Your task to perform on an android device: turn notification dots on Image 0: 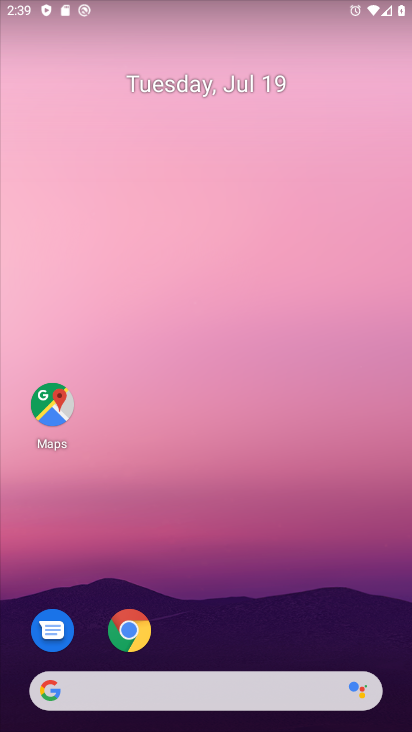
Step 0: drag from (258, 610) to (232, 37)
Your task to perform on an android device: turn notification dots on Image 1: 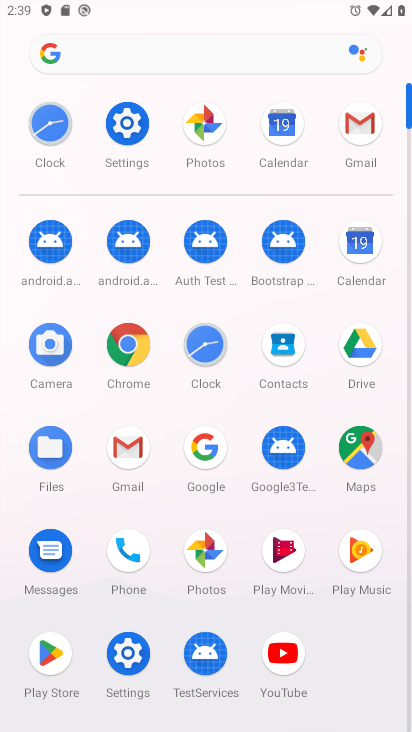
Step 1: click (137, 116)
Your task to perform on an android device: turn notification dots on Image 2: 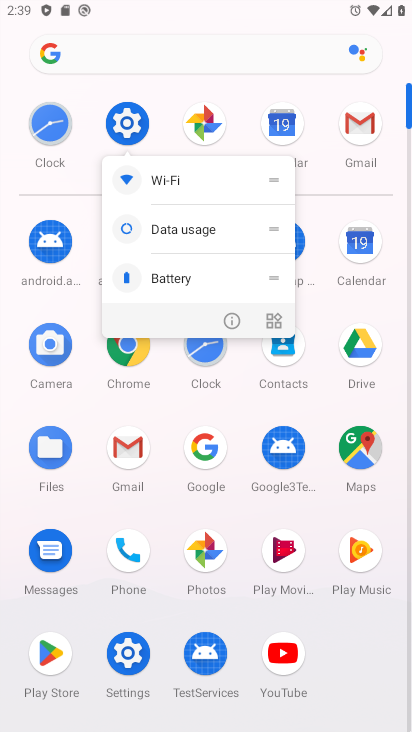
Step 2: click (129, 119)
Your task to perform on an android device: turn notification dots on Image 3: 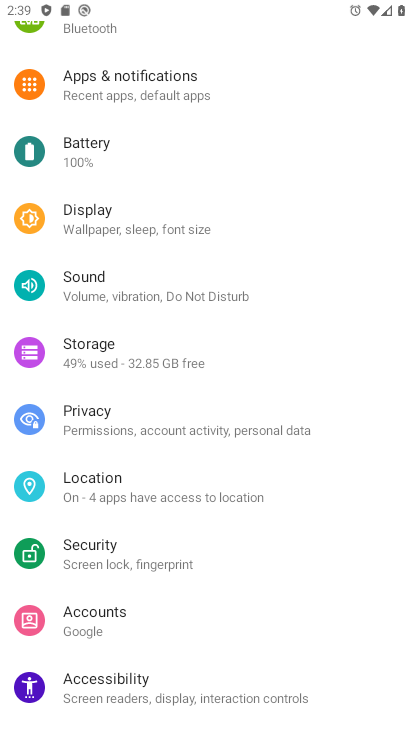
Step 3: click (191, 80)
Your task to perform on an android device: turn notification dots on Image 4: 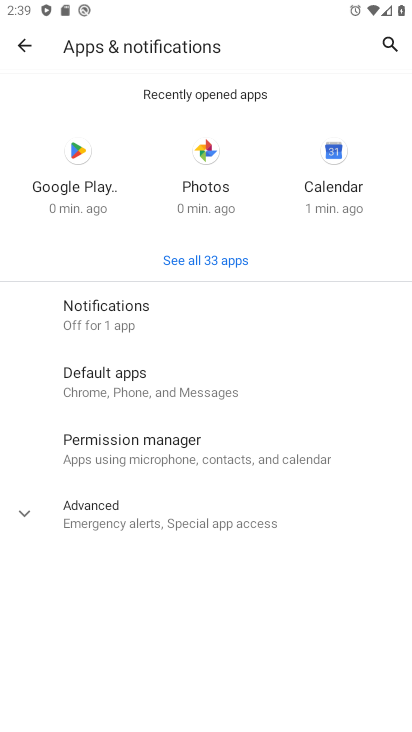
Step 4: click (138, 311)
Your task to perform on an android device: turn notification dots on Image 5: 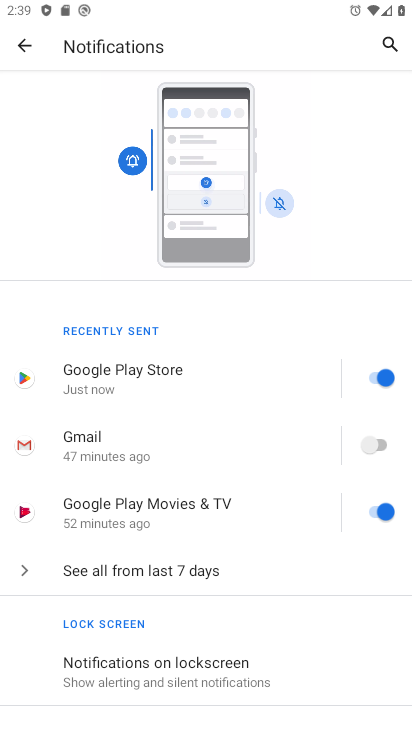
Step 5: drag from (223, 510) to (241, 224)
Your task to perform on an android device: turn notification dots on Image 6: 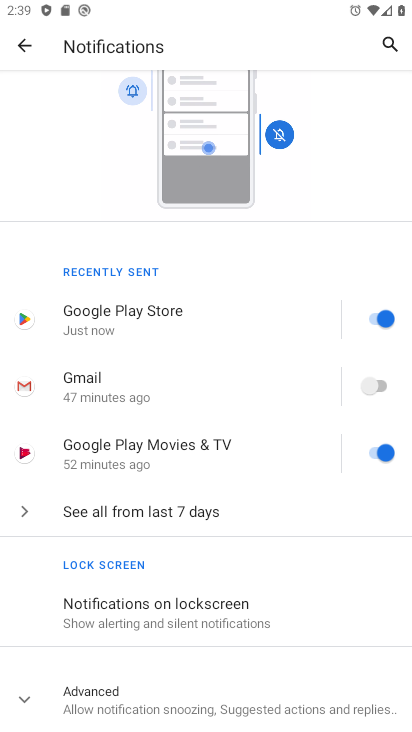
Step 6: click (25, 703)
Your task to perform on an android device: turn notification dots on Image 7: 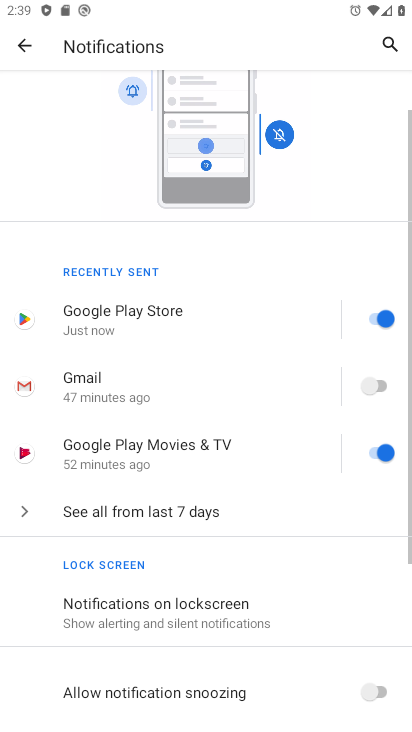
Step 7: drag from (202, 584) to (227, 144)
Your task to perform on an android device: turn notification dots on Image 8: 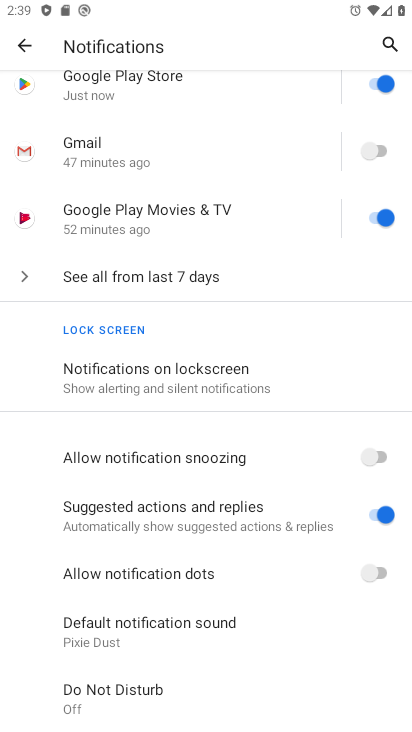
Step 8: click (381, 565)
Your task to perform on an android device: turn notification dots on Image 9: 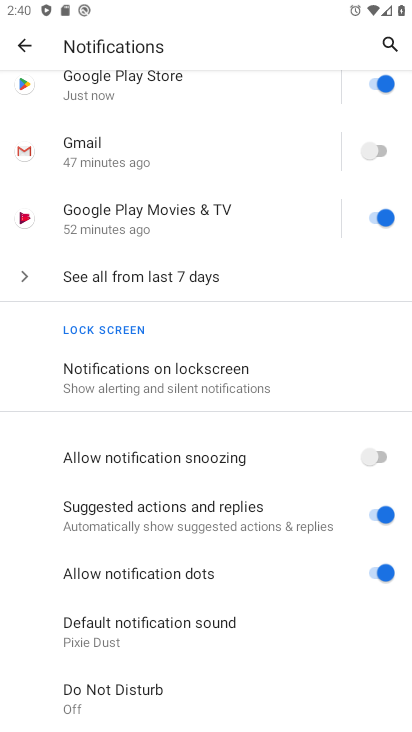
Step 9: task complete